Your task to perform on an android device: Open ESPN.com Image 0: 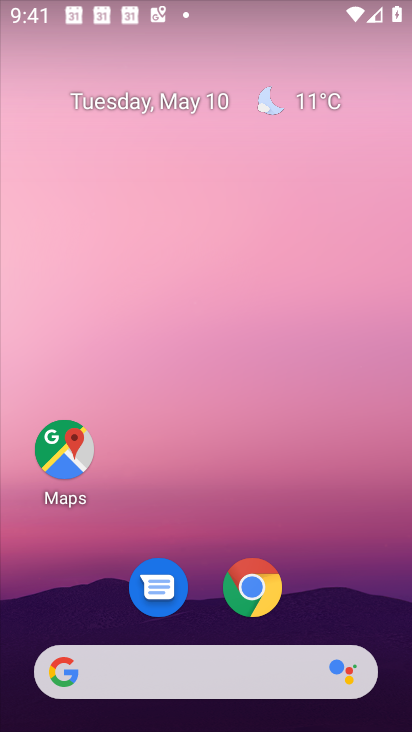
Step 0: drag from (354, 566) to (345, 62)
Your task to perform on an android device: Open ESPN.com Image 1: 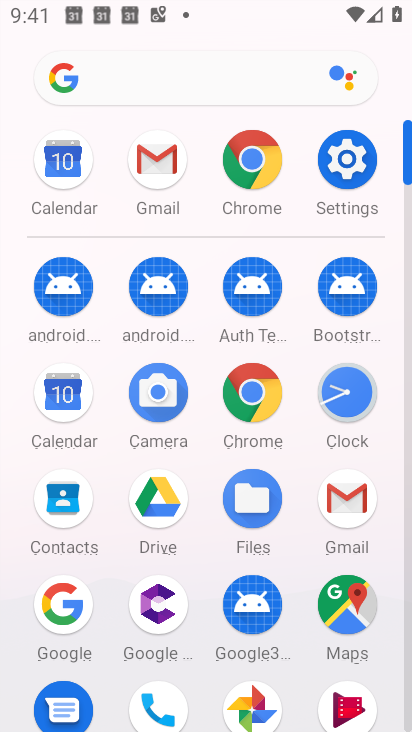
Step 1: click (253, 157)
Your task to perform on an android device: Open ESPN.com Image 2: 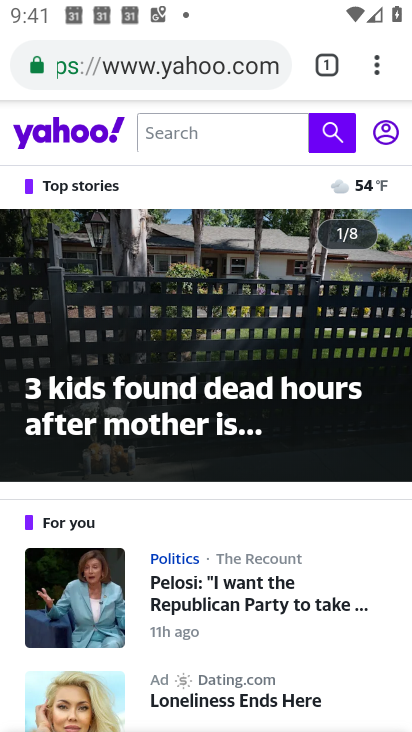
Step 2: click (208, 51)
Your task to perform on an android device: Open ESPN.com Image 3: 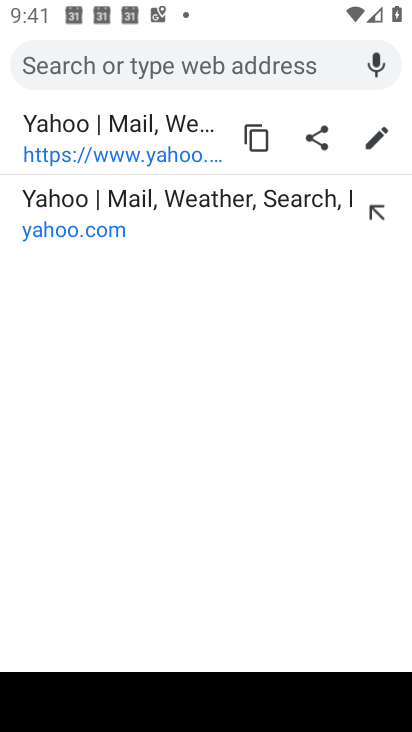
Step 3: type "espn.com"
Your task to perform on an android device: Open ESPN.com Image 4: 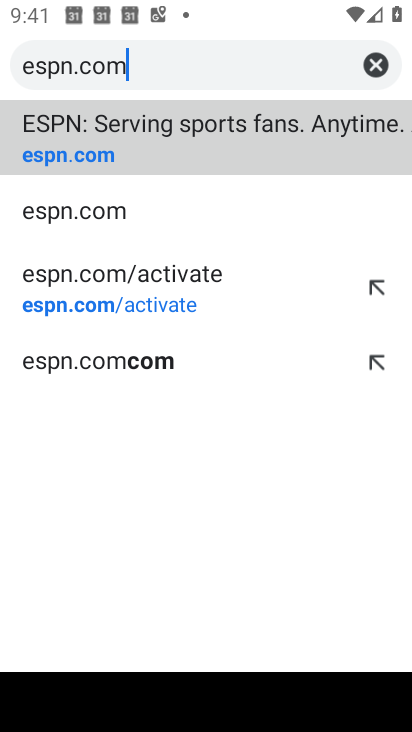
Step 4: click (118, 137)
Your task to perform on an android device: Open ESPN.com Image 5: 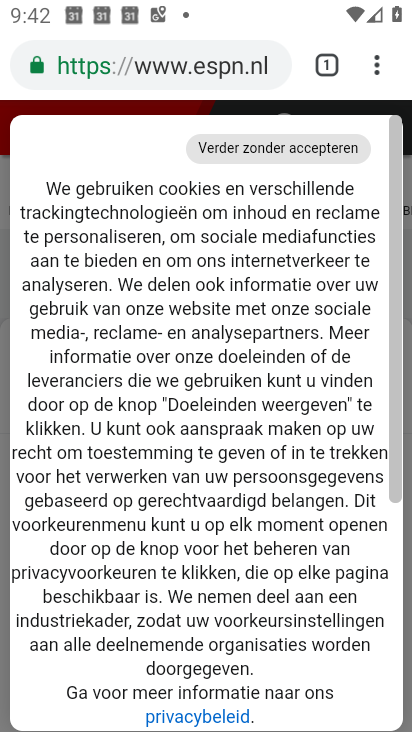
Step 5: task complete